Your task to perform on an android device: Open maps Image 0: 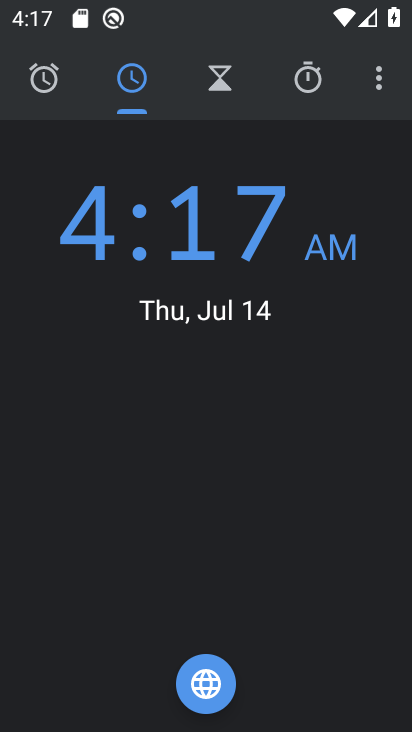
Step 0: press home button
Your task to perform on an android device: Open maps Image 1: 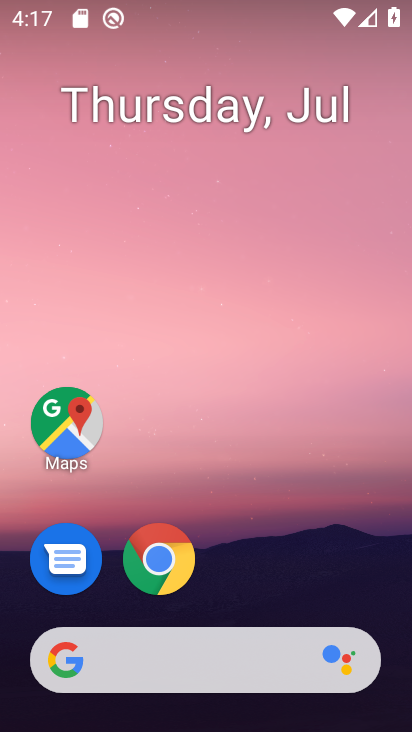
Step 1: drag from (255, 503) to (288, 206)
Your task to perform on an android device: Open maps Image 2: 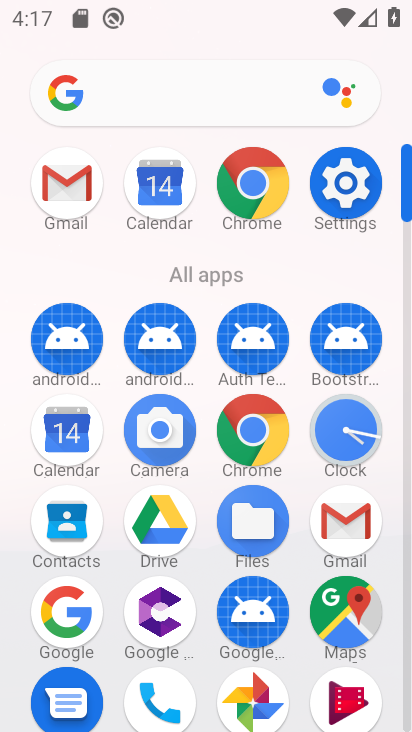
Step 2: click (350, 624)
Your task to perform on an android device: Open maps Image 3: 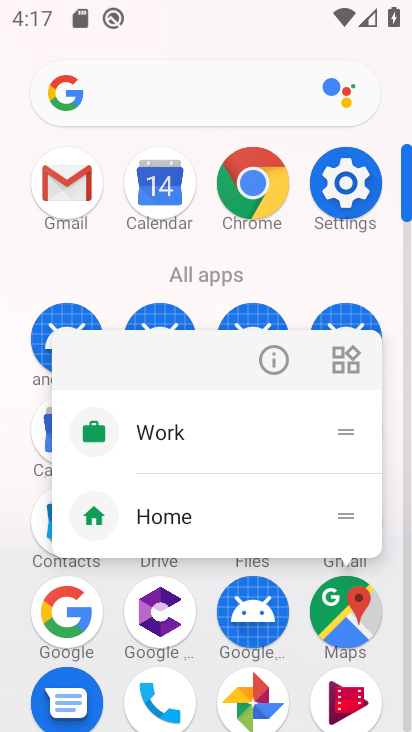
Step 3: click (362, 612)
Your task to perform on an android device: Open maps Image 4: 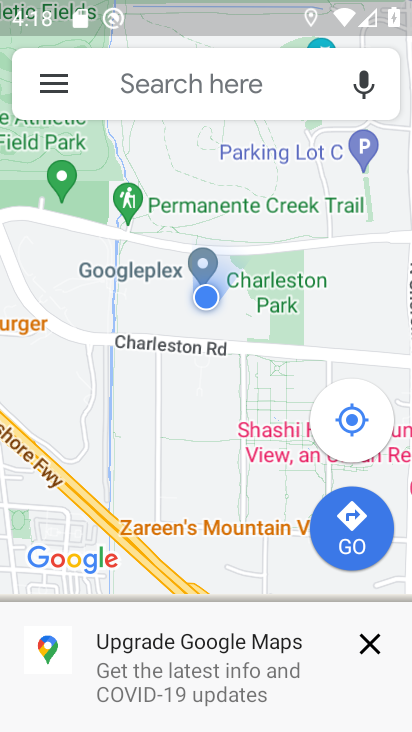
Step 4: task complete